Your task to perform on an android device: change the upload size in google photos Image 0: 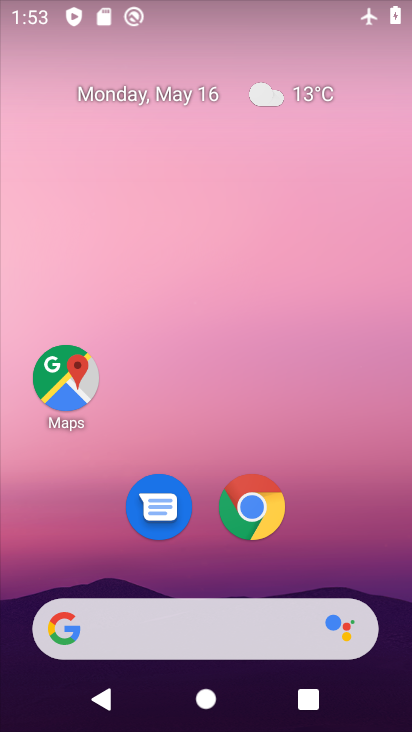
Step 0: click (199, 116)
Your task to perform on an android device: change the upload size in google photos Image 1: 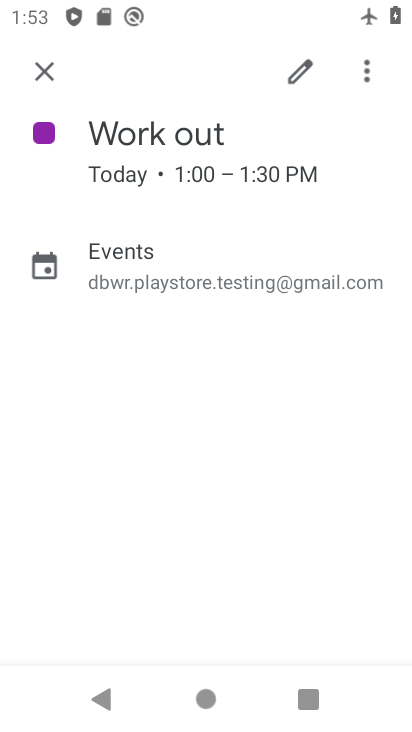
Step 1: press home button
Your task to perform on an android device: change the upload size in google photos Image 2: 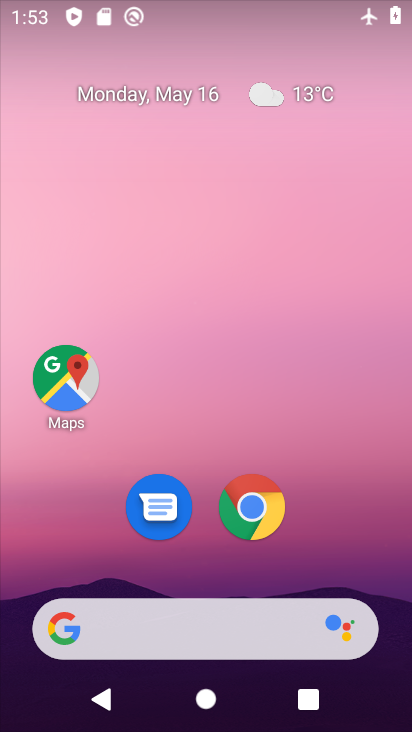
Step 2: drag from (78, 561) to (156, 148)
Your task to perform on an android device: change the upload size in google photos Image 3: 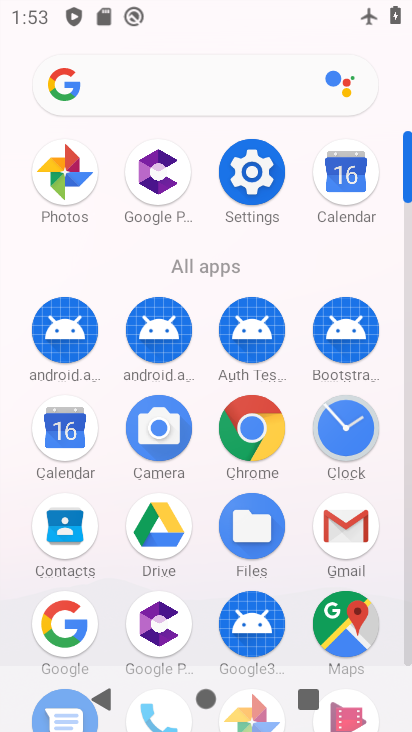
Step 3: drag from (161, 522) to (214, 379)
Your task to perform on an android device: change the upload size in google photos Image 4: 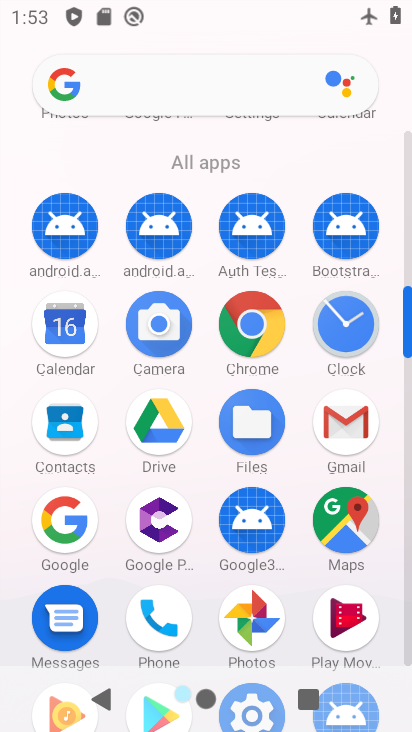
Step 4: click (252, 631)
Your task to perform on an android device: change the upload size in google photos Image 5: 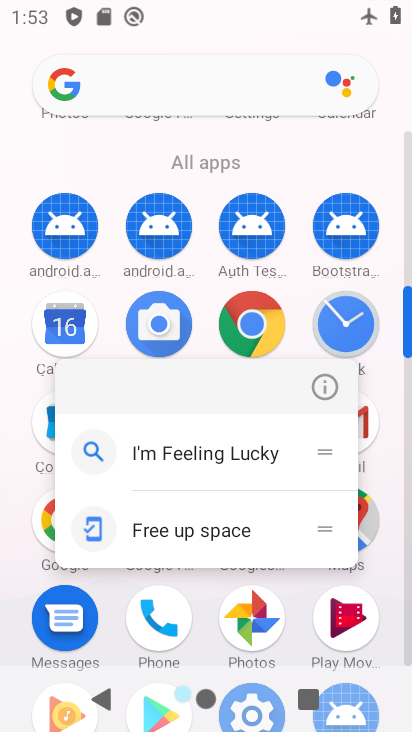
Step 5: click (249, 629)
Your task to perform on an android device: change the upload size in google photos Image 6: 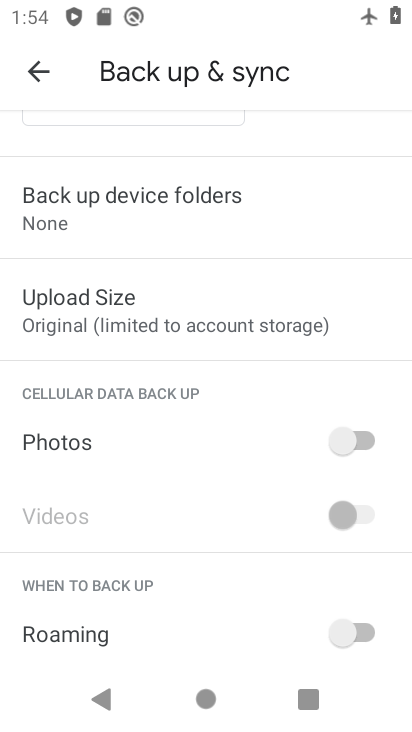
Step 6: click (141, 319)
Your task to perform on an android device: change the upload size in google photos Image 7: 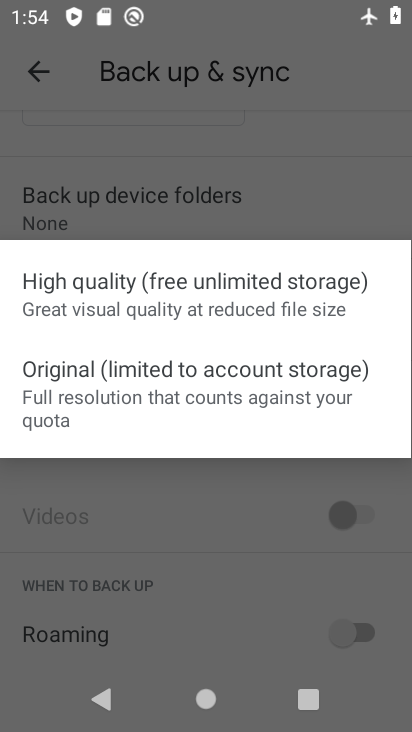
Step 7: click (166, 284)
Your task to perform on an android device: change the upload size in google photos Image 8: 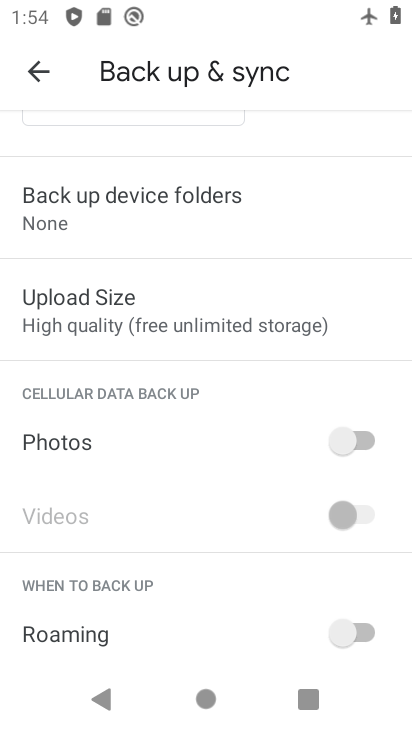
Step 8: task complete